Your task to perform on an android device: see creations saved in the google photos Image 0: 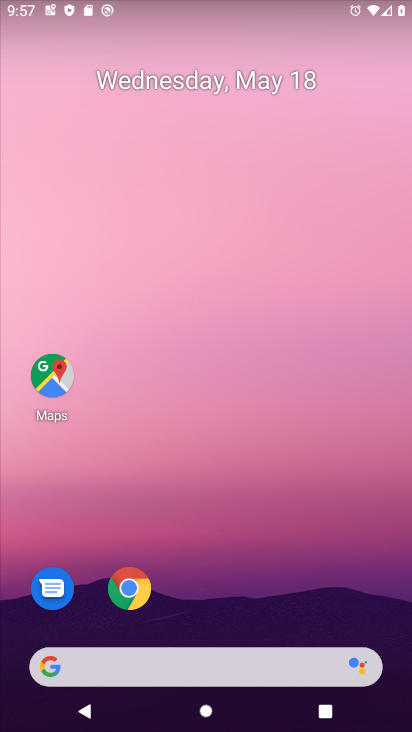
Step 0: drag from (250, 690) to (305, 135)
Your task to perform on an android device: see creations saved in the google photos Image 1: 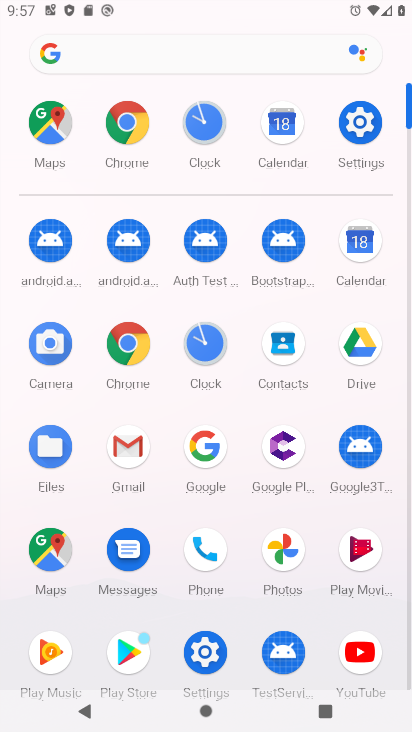
Step 1: click (285, 559)
Your task to perform on an android device: see creations saved in the google photos Image 2: 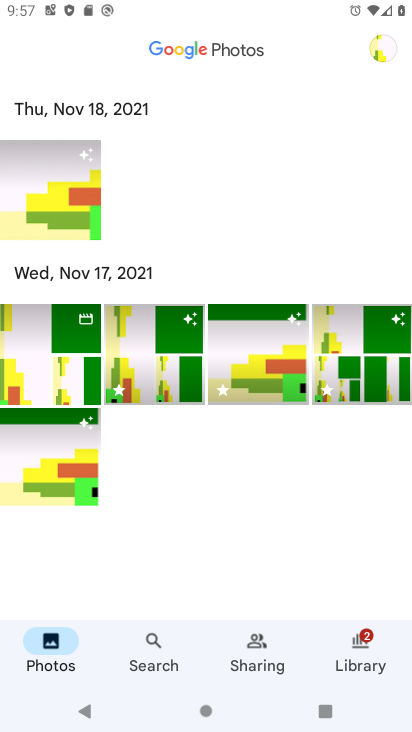
Step 2: click (268, 390)
Your task to perform on an android device: see creations saved in the google photos Image 3: 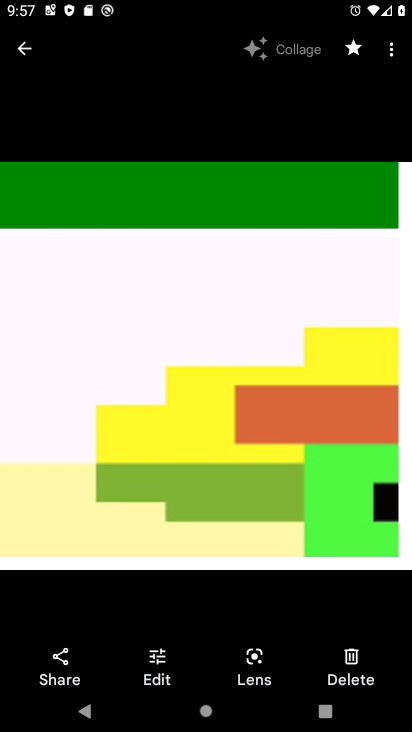
Step 3: click (394, 66)
Your task to perform on an android device: see creations saved in the google photos Image 4: 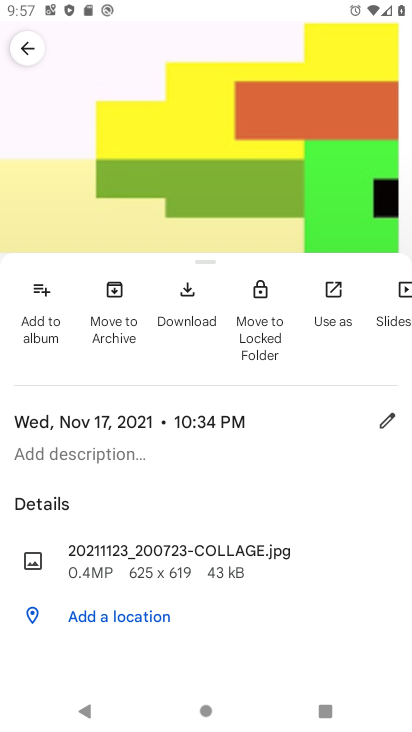
Step 4: task complete